Your task to perform on an android device: Is it going to rain this weekend? Image 0: 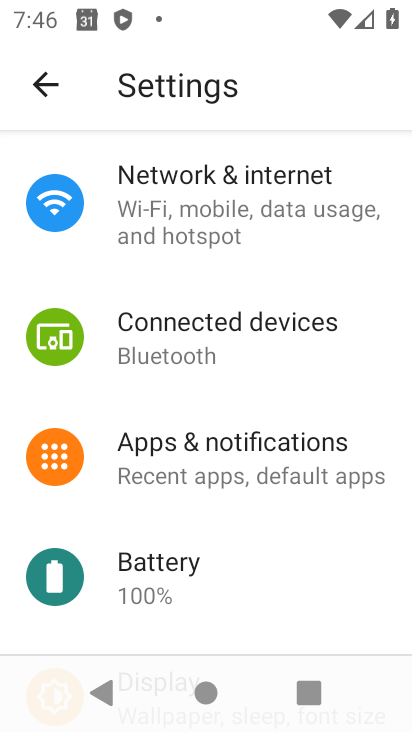
Step 0: press home button
Your task to perform on an android device: Is it going to rain this weekend? Image 1: 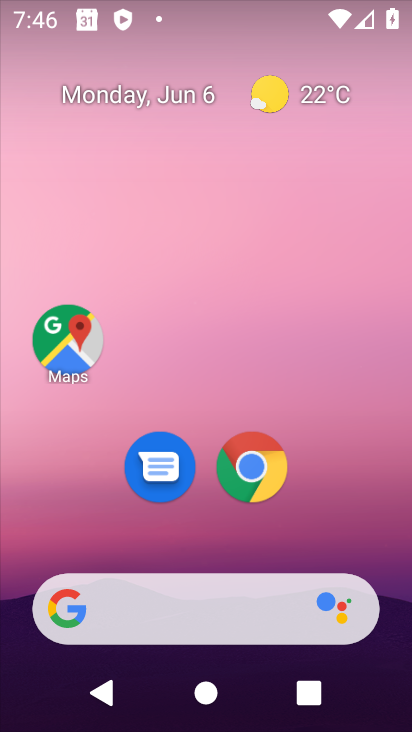
Step 1: click (296, 92)
Your task to perform on an android device: Is it going to rain this weekend? Image 2: 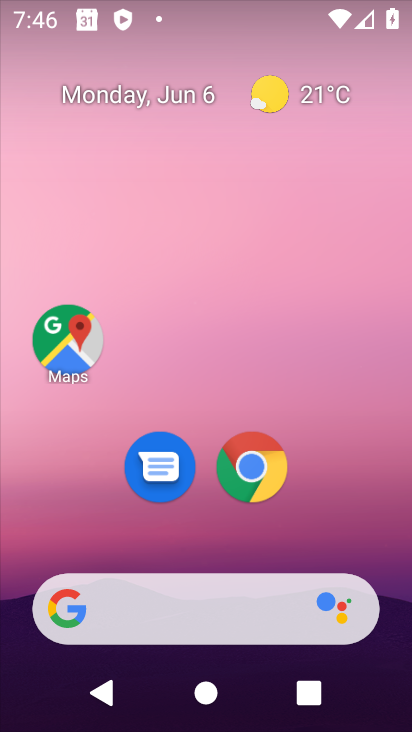
Step 2: click (296, 92)
Your task to perform on an android device: Is it going to rain this weekend? Image 3: 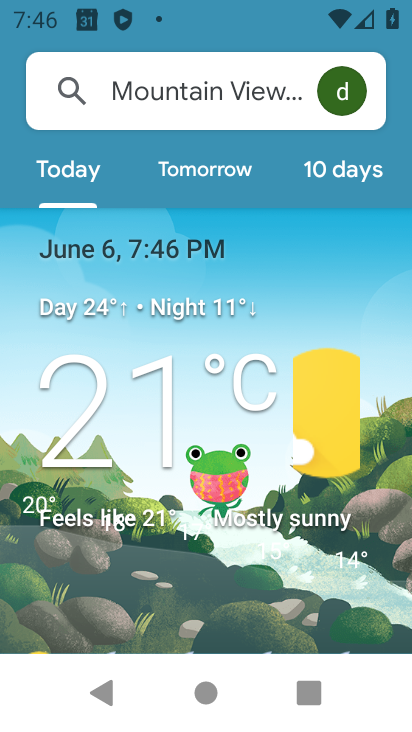
Step 3: click (346, 176)
Your task to perform on an android device: Is it going to rain this weekend? Image 4: 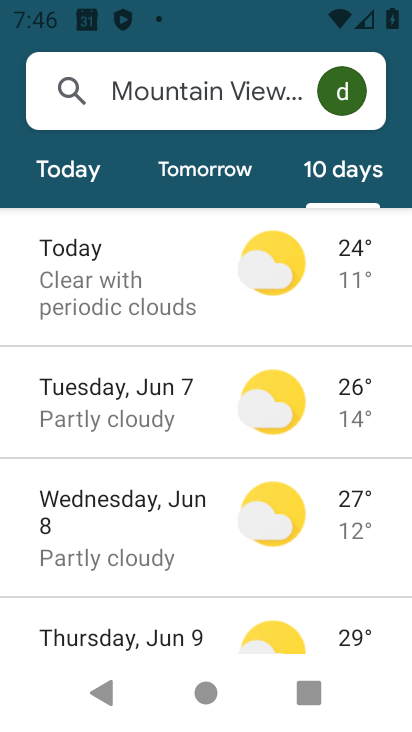
Step 4: drag from (221, 528) to (256, 320)
Your task to perform on an android device: Is it going to rain this weekend? Image 5: 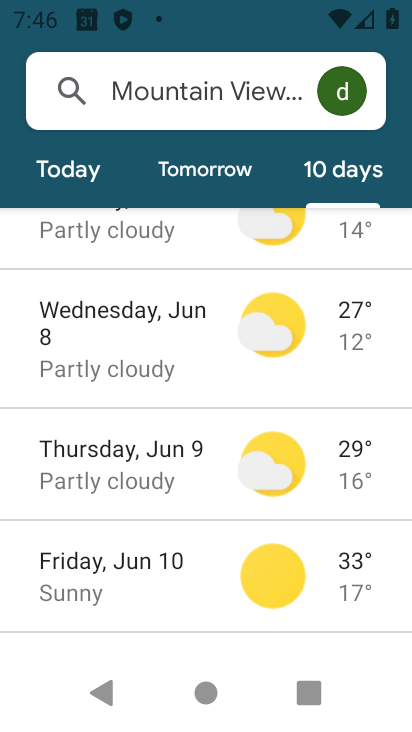
Step 5: drag from (221, 500) to (227, 278)
Your task to perform on an android device: Is it going to rain this weekend? Image 6: 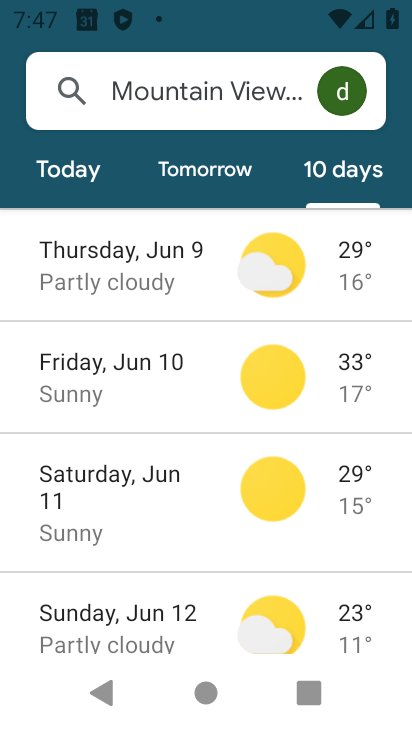
Step 6: click (173, 539)
Your task to perform on an android device: Is it going to rain this weekend? Image 7: 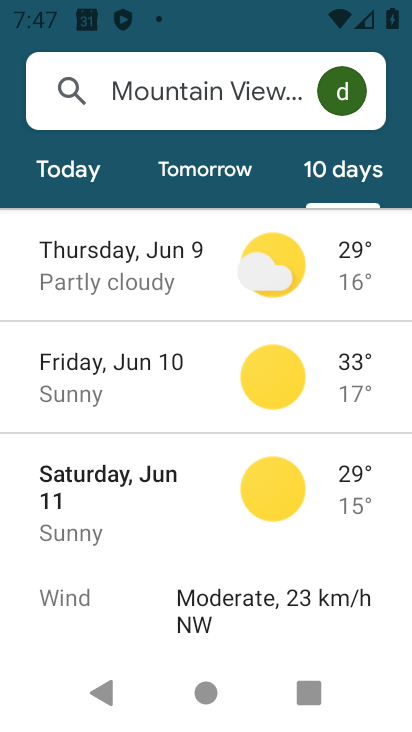
Step 7: task complete